Your task to perform on an android device: What is the speed of sound? Image 0: 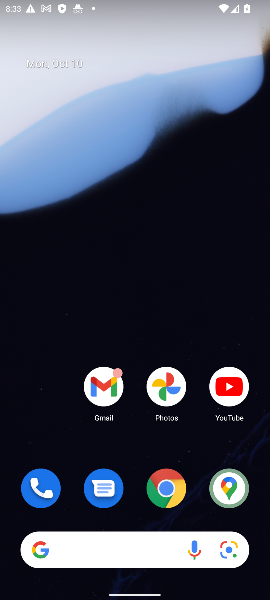
Step 0: drag from (133, 454) to (153, 0)
Your task to perform on an android device: What is the speed of sound? Image 1: 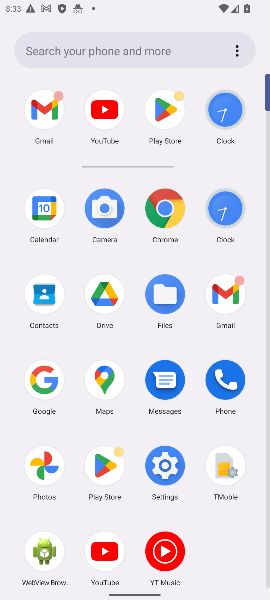
Step 1: click (163, 209)
Your task to perform on an android device: What is the speed of sound? Image 2: 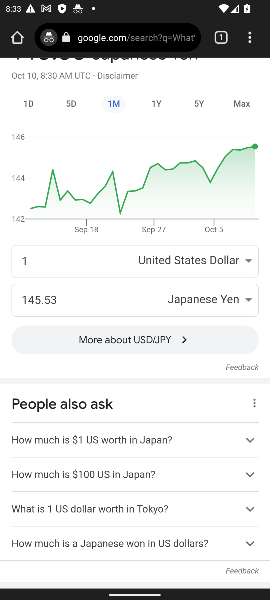
Step 2: click (151, 39)
Your task to perform on an android device: What is the speed of sound? Image 3: 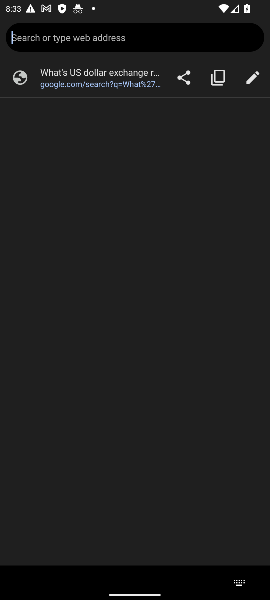
Step 3: type "What is the speed of sound?"
Your task to perform on an android device: What is the speed of sound? Image 4: 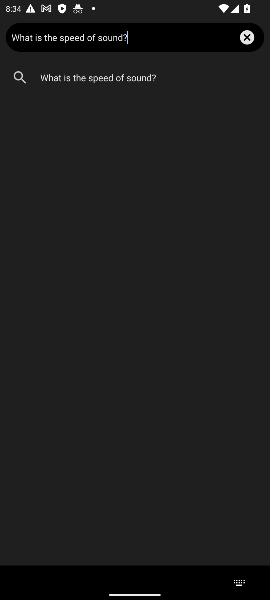
Step 4: press enter
Your task to perform on an android device: What is the speed of sound? Image 5: 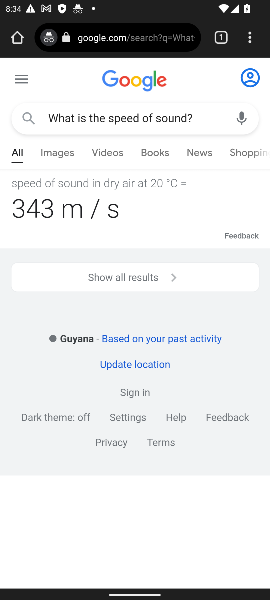
Step 5: task complete